Your task to perform on an android device: What is the recent news? Image 0: 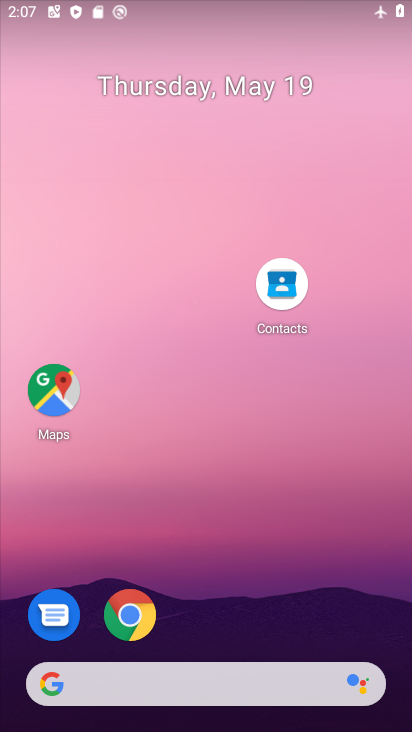
Step 0: drag from (208, 587) to (271, 70)
Your task to perform on an android device: What is the recent news? Image 1: 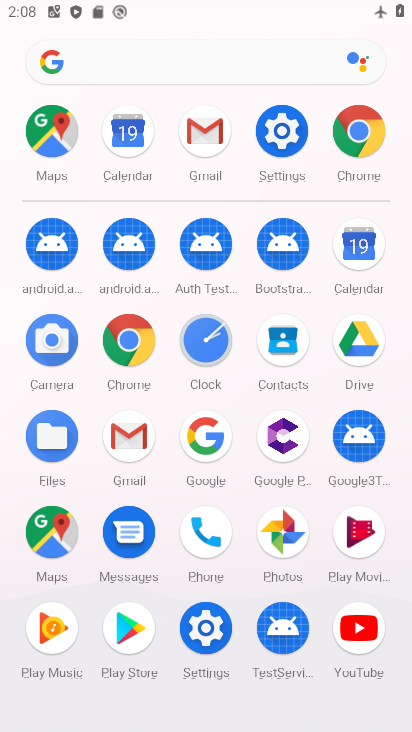
Step 1: click (202, 450)
Your task to perform on an android device: What is the recent news? Image 2: 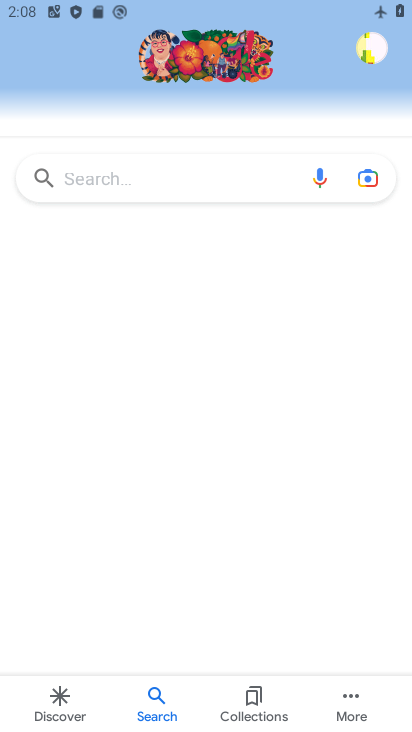
Step 2: click (149, 173)
Your task to perform on an android device: What is the recent news? Image 3: 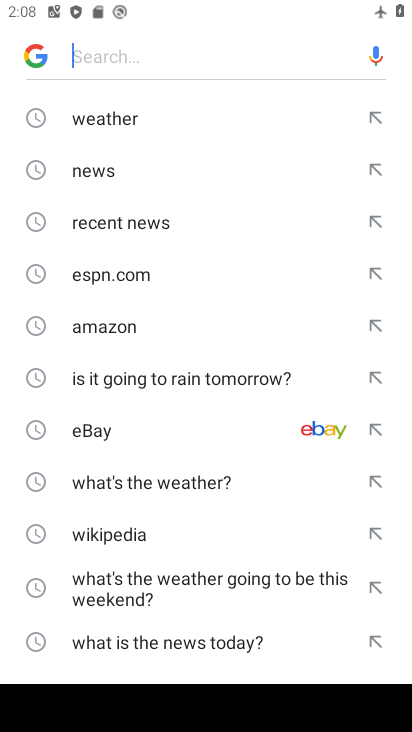
Step 3: click (175, 224)
Your task to perform on an android device: What is the recent news? Image 4: 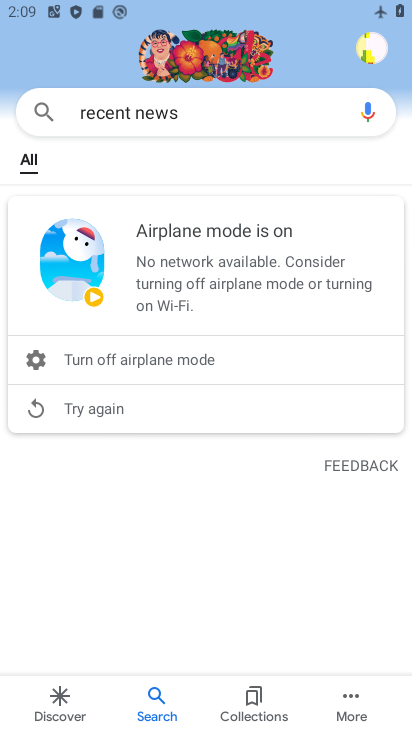
Step 4: task complete